Your task to perform on an android device: Toggle the flashlight Image 0: 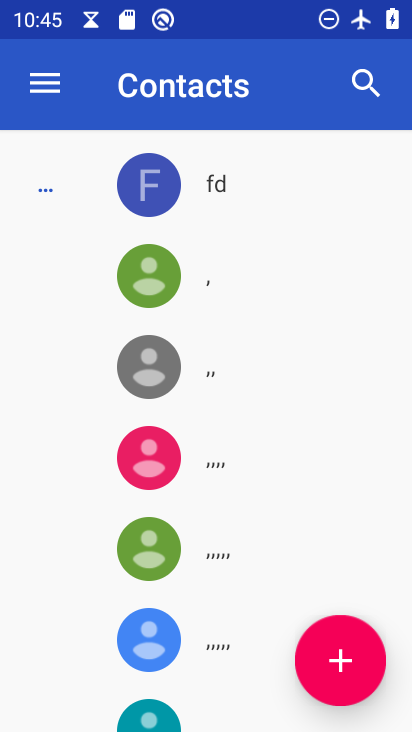
Step 0: press home button
Your task to perform on an android device: Toggle the flashlight Image 1: 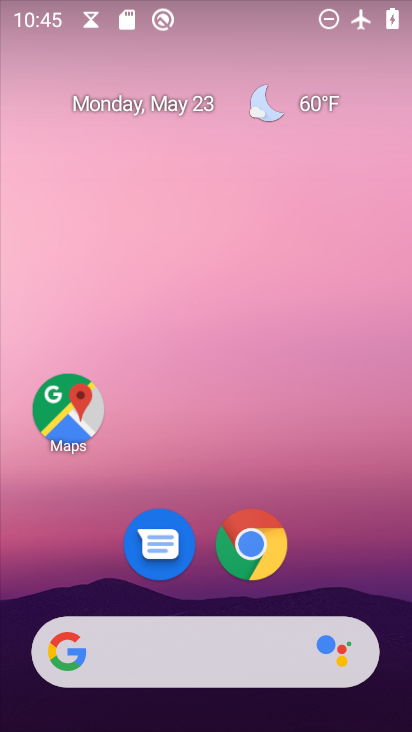
Step 1: drag from (345, 555) to (187, 137)
Your task to perform on an android device: Toggle the flashlight Image 2: 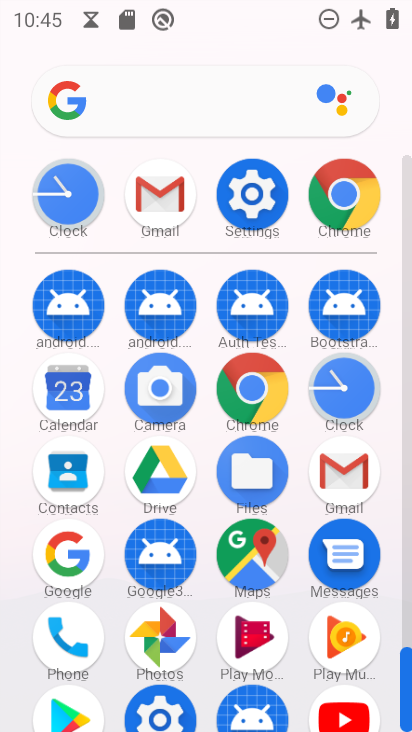
Step 2: click (258, 211)
Your task to perform on an android device: Toggle the flashlight Image 3: 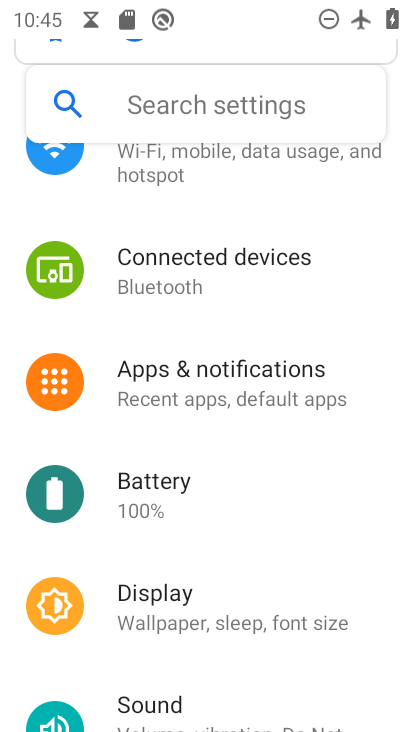
Step 3: click (154, 116)
Your task to perform on an android device: Toggle the flashlight Image 4: 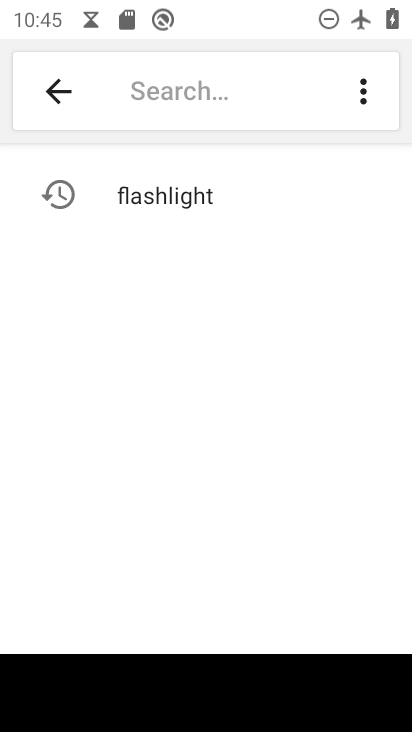
Step 4: click (148, 201)
Your task to perform on an android device: Toggle the flashlight Image 5: 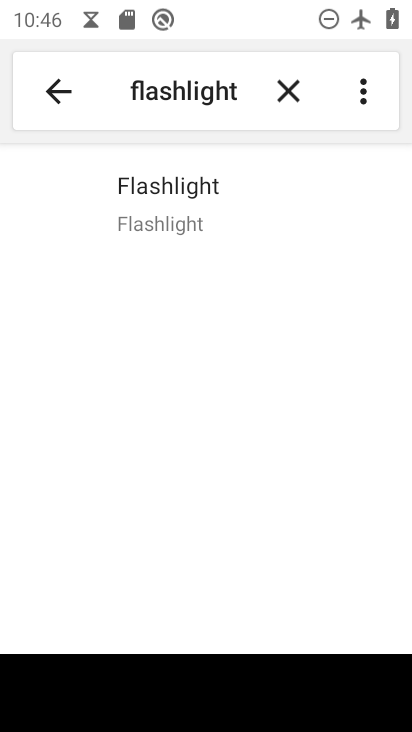
Step 5: click (200, 184)
Your task to perform on an android device: Toggle the flashlight Image 6: 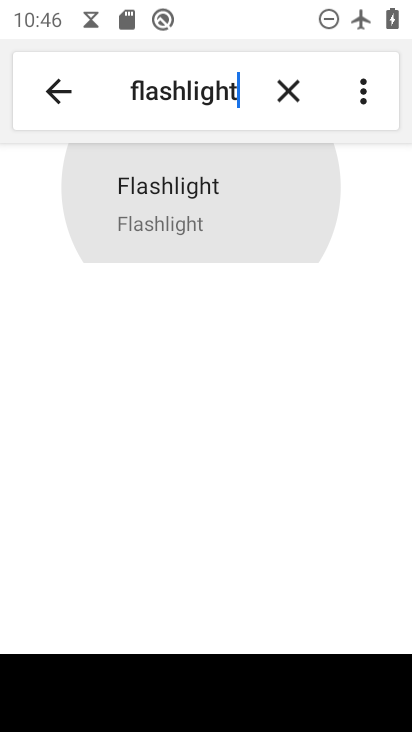
Step 6: click (200, 184)
Your task to perform on an android device: Toggle the flashlight Image 7: 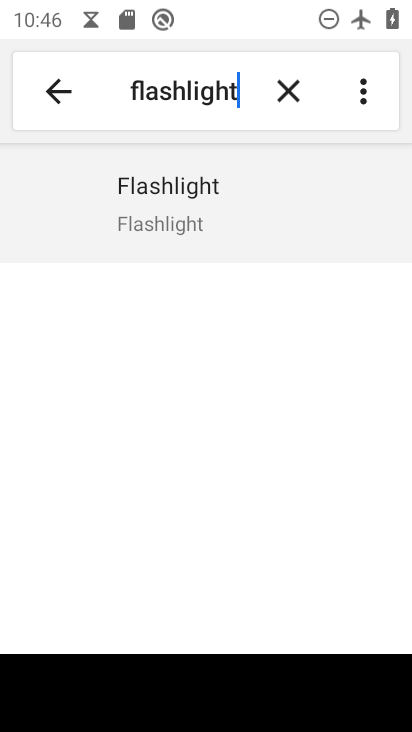
Step 7: click (200, 184)
Your task to perform on an android device: Toggle the flashlight Image 8: 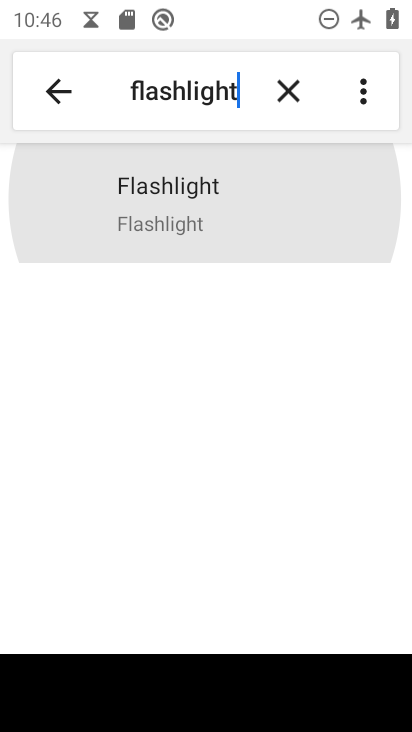
Step 8: click (200, 184)
Your task to perform on an android device: Toggle the flashlight Image 9: 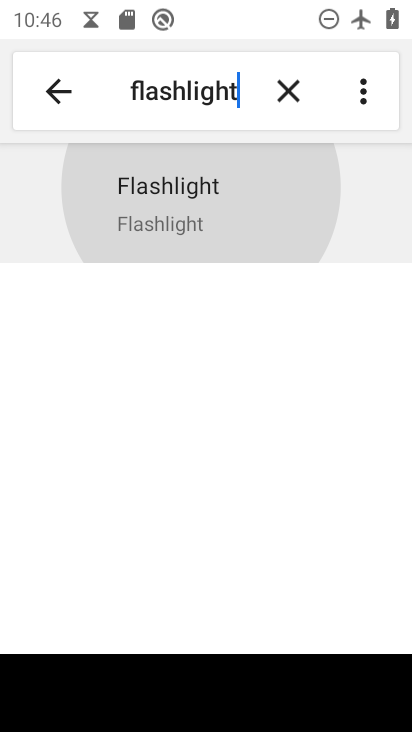
Step 9: click (200, 184)
Your task to perform on an android device: Toggle the flashlight Image 10: 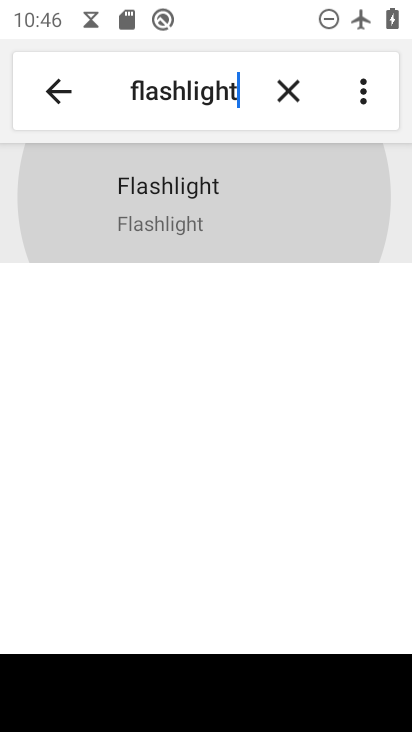
Step 10: click (200, 184)
Your task to perform on an android device: Toggle the flashlight Image 11: 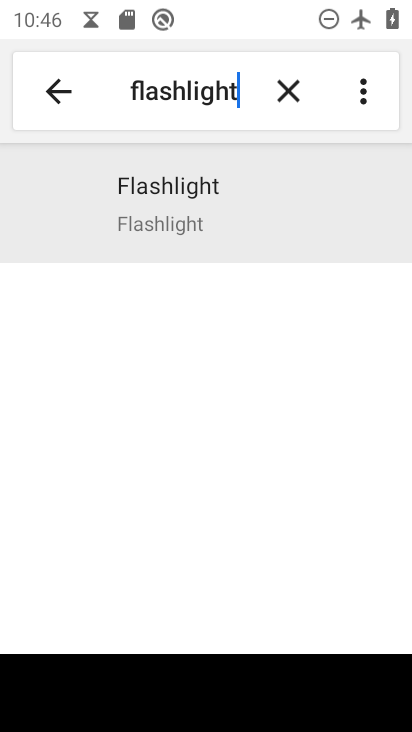
Step 11: click (200, 184)
Your task to perform on an android device: Toggle the flashlight Image 12: 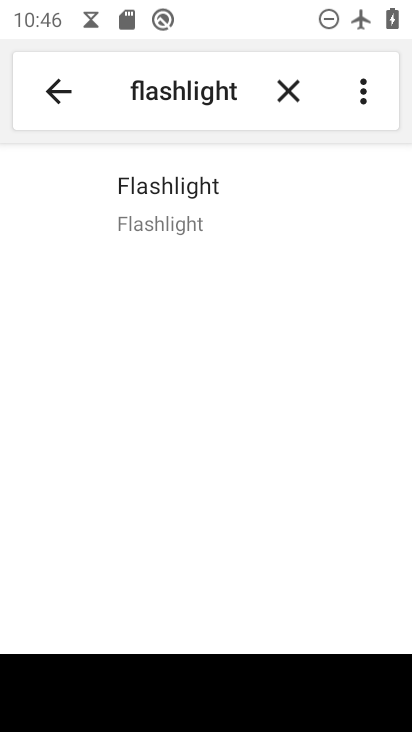
Step 12: task complete